Your task to perform on an android device: See recent photos Image 0: 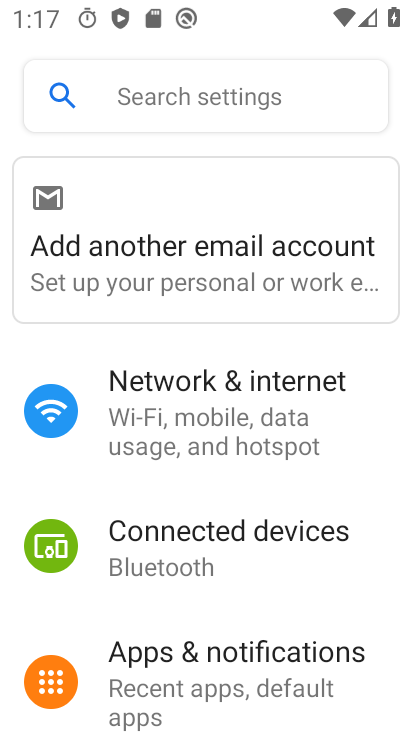
Step 0: drag from (227, 355) to (272, 177)
Your task to perform on an android device: See recent photos Image 1: 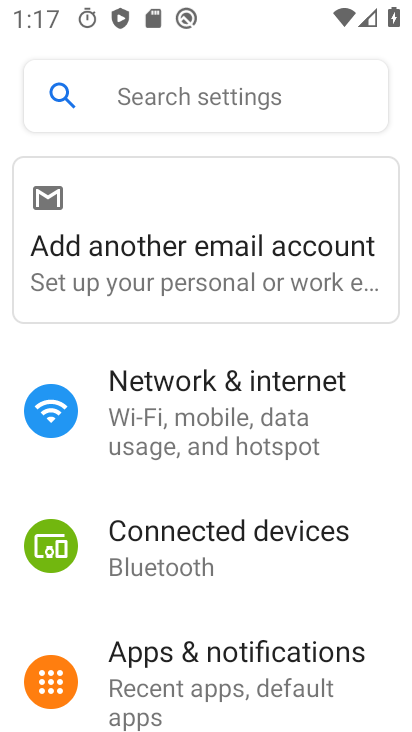
Step 1: press home button
Your task to perform on an android device: See recent photos Image 2: 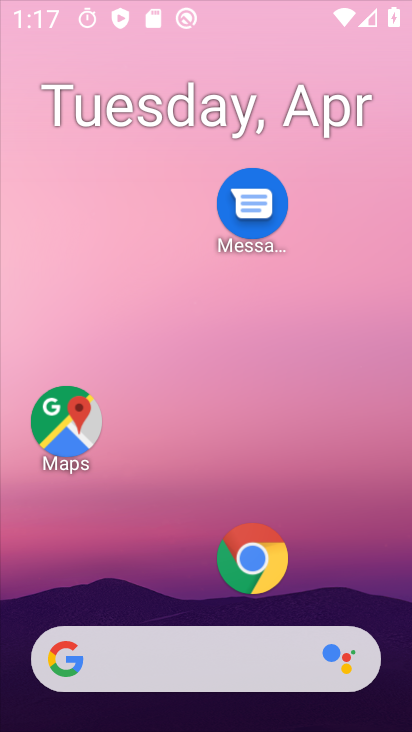
Step 2: drag from (220, 586) to (246, 261)
Your task to perform on an android device: See recent photos Image 3: 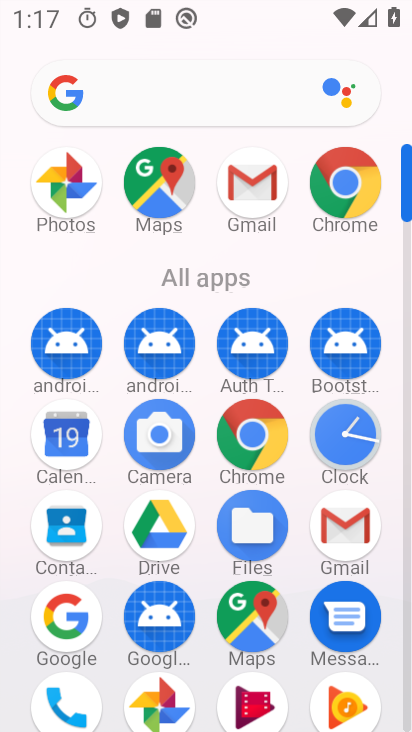
Step 3: drag from (197, 682) to (239, 227)
Your task to perform on an android device: See recent photos Image 4: 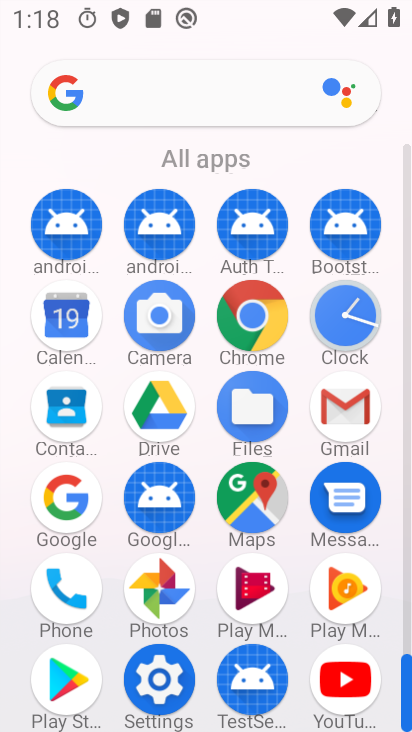
Step 4: drag from (201, 584) to (170, 179)
Your task to perform on an android device: See recent photos Image 5: 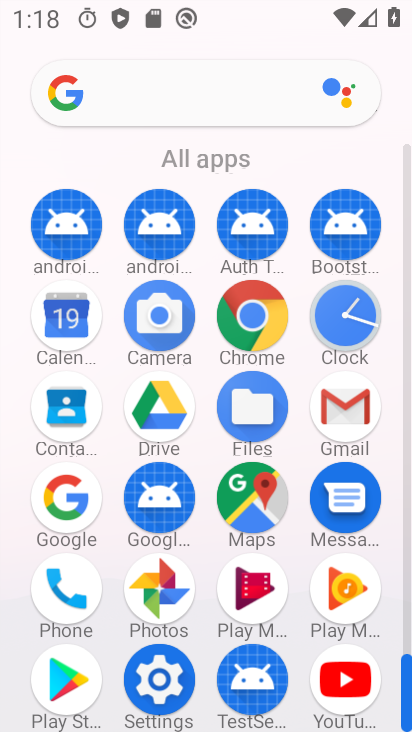
Step 5: drag from (218, 633) to (244, 206)
Your task to perform on an android device: See recent photos Image 6: 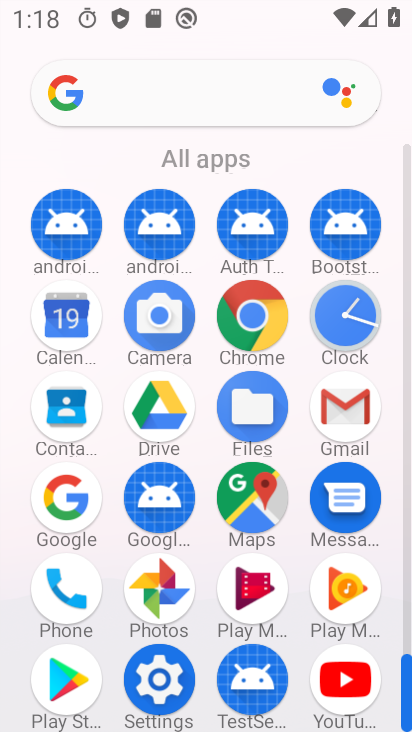
Step 6: click (159, 574)
Your task to perform on an android device: See recent photos Image 7: 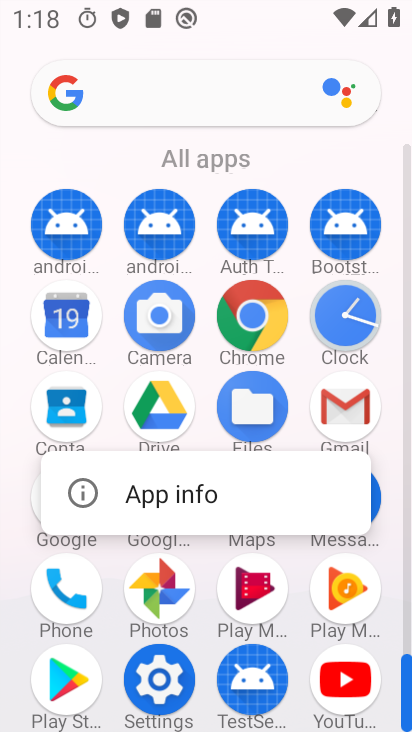
Step 7: click (204, 494)
Your task to perform on an android device: See recent photos Image 8: 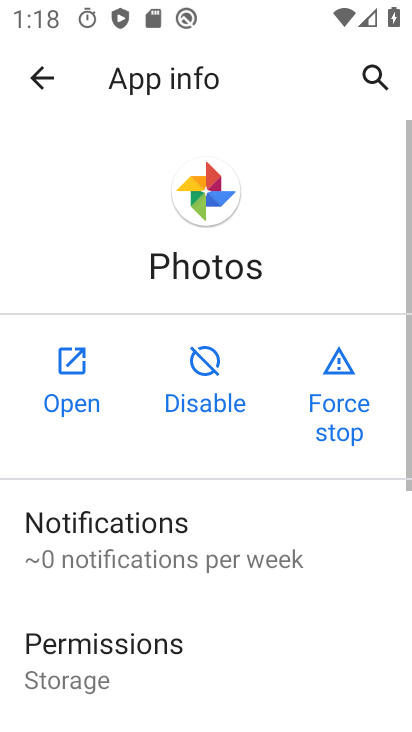
Step 8: click (92, 370)
Your task to perform on an android device: See recent photos Image 9: 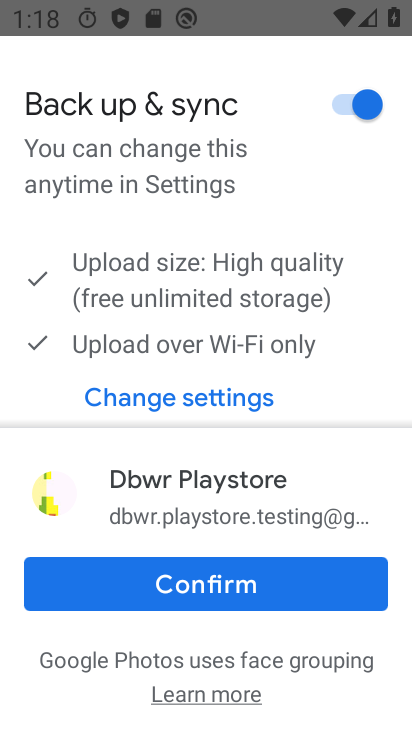
Step 9: click (211, 583)
Your task to perform on an android device: See recent photos Image 10: 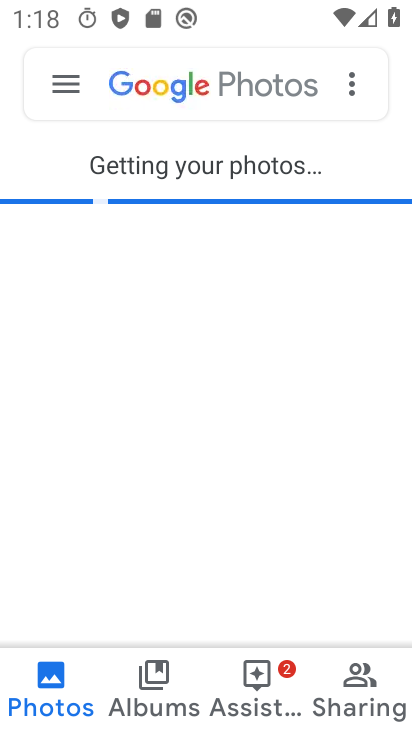
Step 10: click (55, 84)
Your task to perform on an android device: See recent photos Image 11: 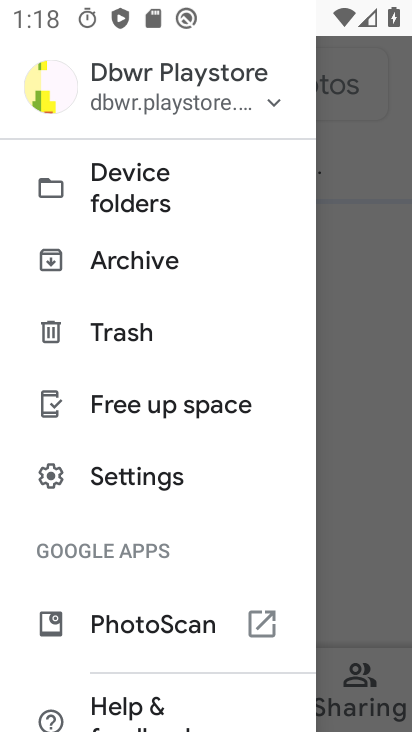
Step 11: click (363, 586)
Your task to perform on an android device: See recent photos Image 12: 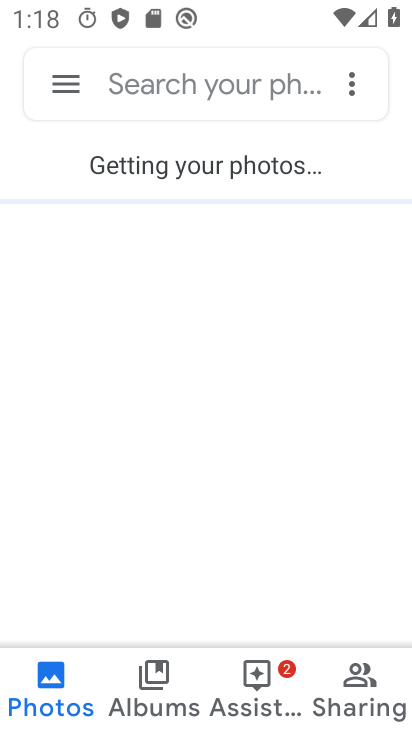
Step 12: click (51, 692)
Your task to perform on an android device: See recent photos Image 13: 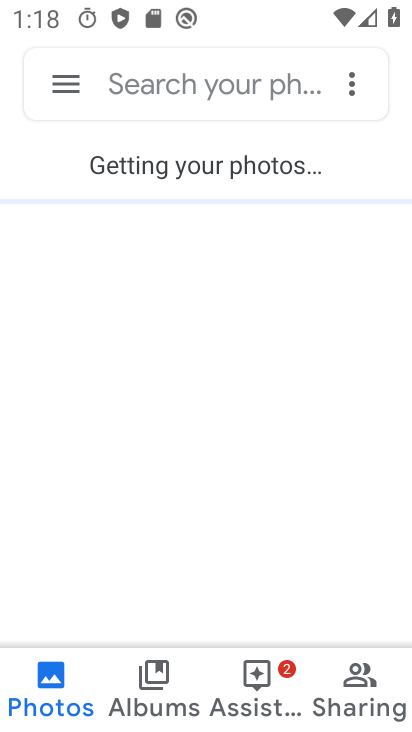
Step 13: click (79, 253)
Your task to perform on an android device: See recent photos Image 14: 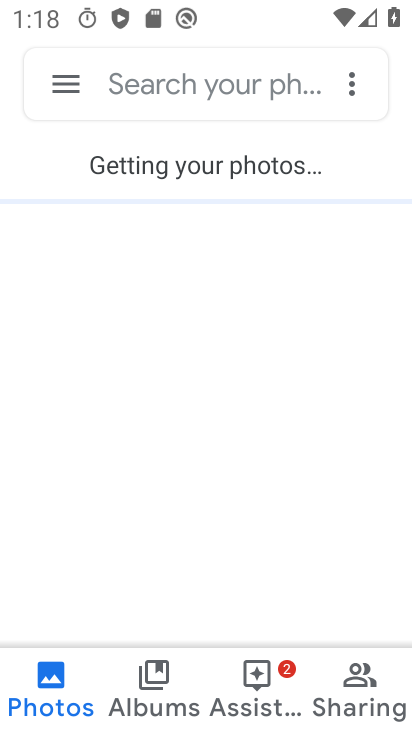
Step 14: drag from (215, 465) to (261, 256)
Your task to perform on an android device: See recent photos Image 15: 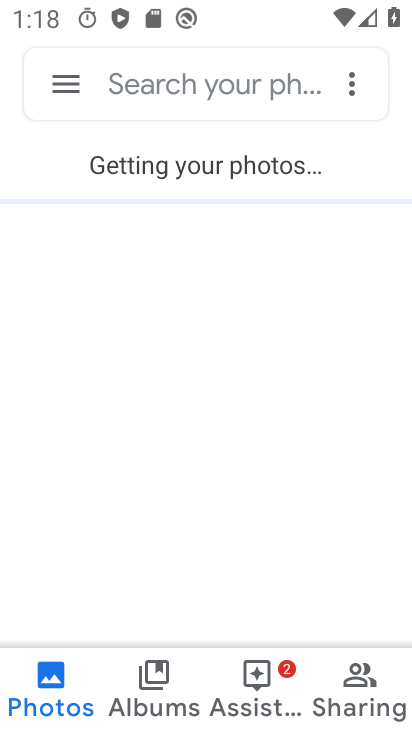
Step 15: drag from (148, 287) to (233, 289)
Your task to perform on an android device: See recent photos Image 16: 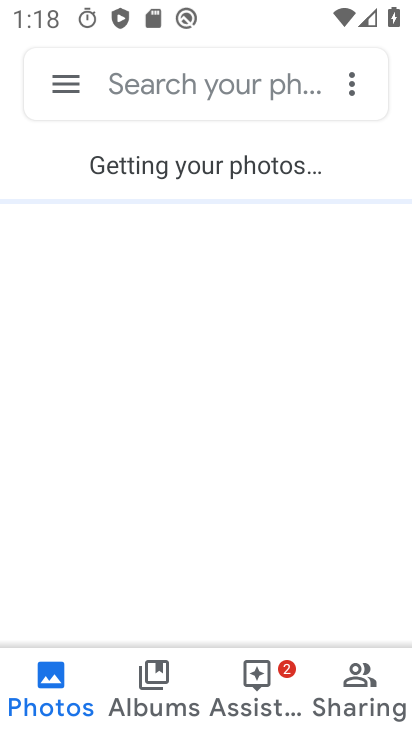
Step 16: drag from (165, 492) to (190, 290)
Your task to perform on an android device: See recent photos Image 17: 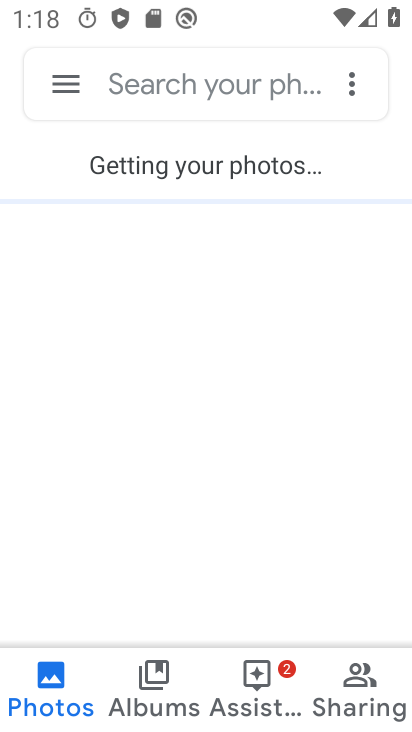
Step 17: click (114, 267)
Your task to perform on an android device: See recent photos Image 18: 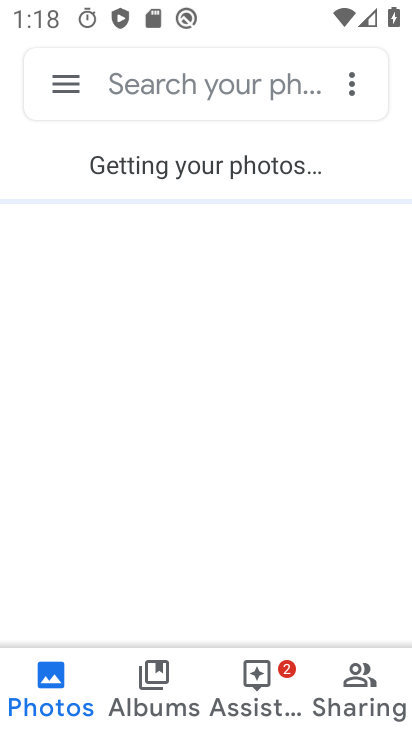
Step 18: click (104, 444)
Your task to perform on an android device: See recent photos Image 19: 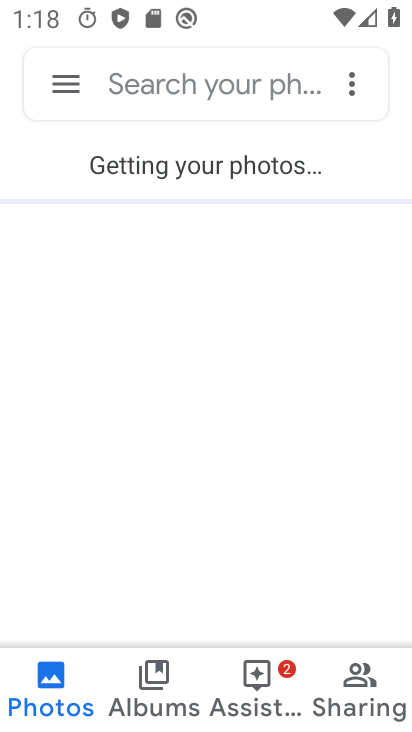
Step 19: task complete